Your task to perform on an android device: move a message to another label in the gmail app Image 0: 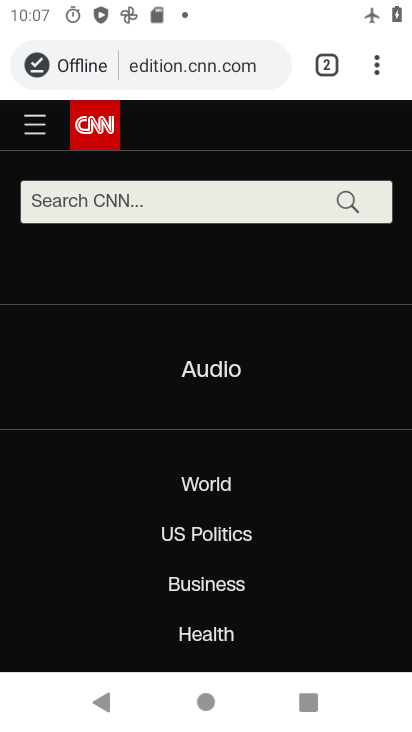
Step 0: press home button
Your task to perform on an android device: move a message to another label in the gmail app Image 1: 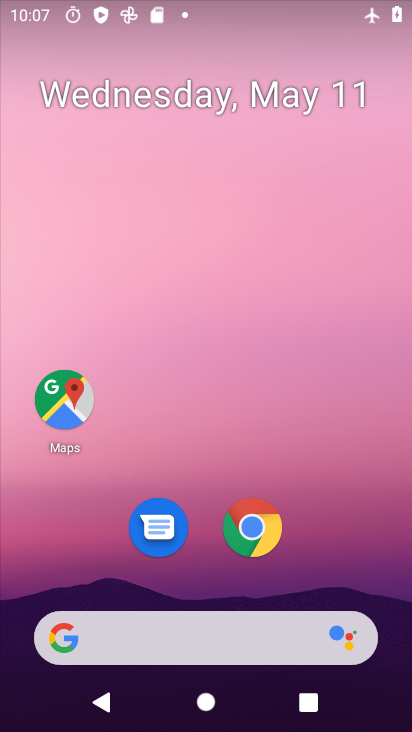
Step 1: drag from (313, 677) to (260, 96)
Your task to perform on an android device: move a message to another label in the gmail app Image 2: 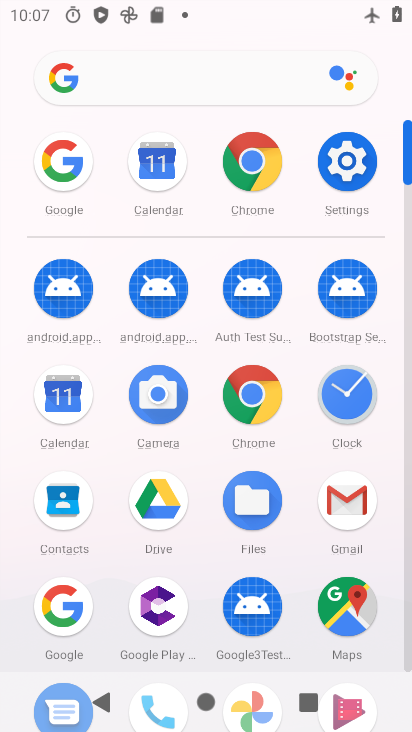
Step 2: click (343, 485)
Your task to perform on an android device: move a message to another label in the gmail app Image 3: 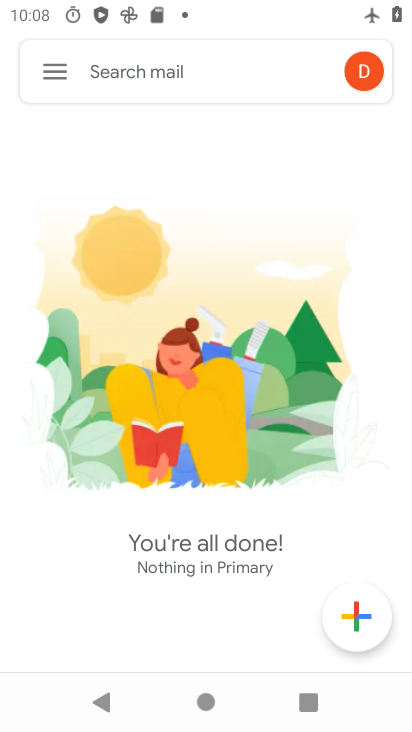
Step 3: click (69, 73)
Your task to perform on an android device: move a message to another label in the gmail app Image 4: 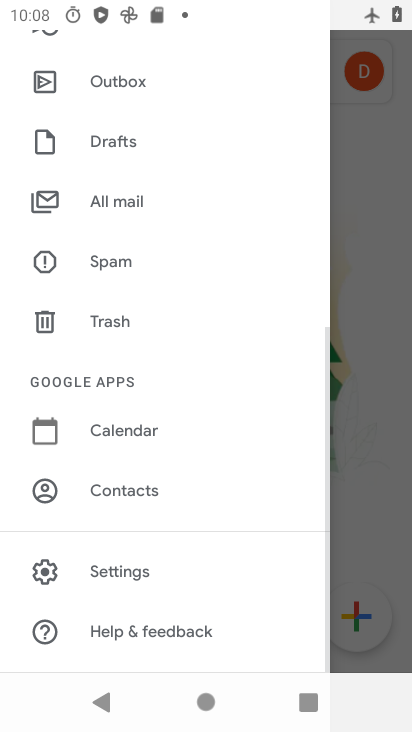
Step 4: click (92, 216)
Your task to perform on an android device: move a message to another label in the gmail app Image 5: 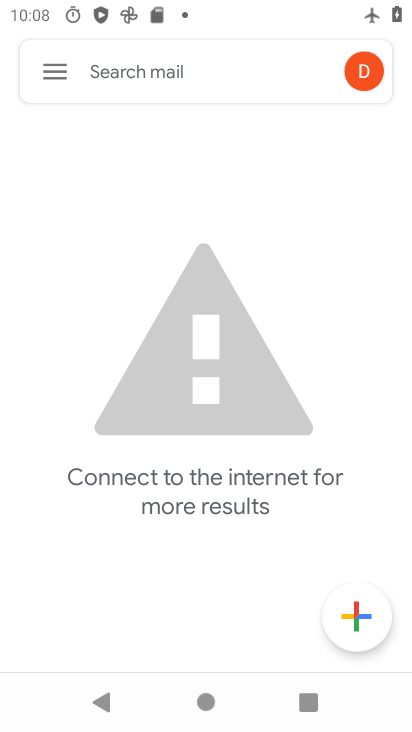
Step 5: task complete